Your task to perform on an android device: Open CNN.com Image 0: 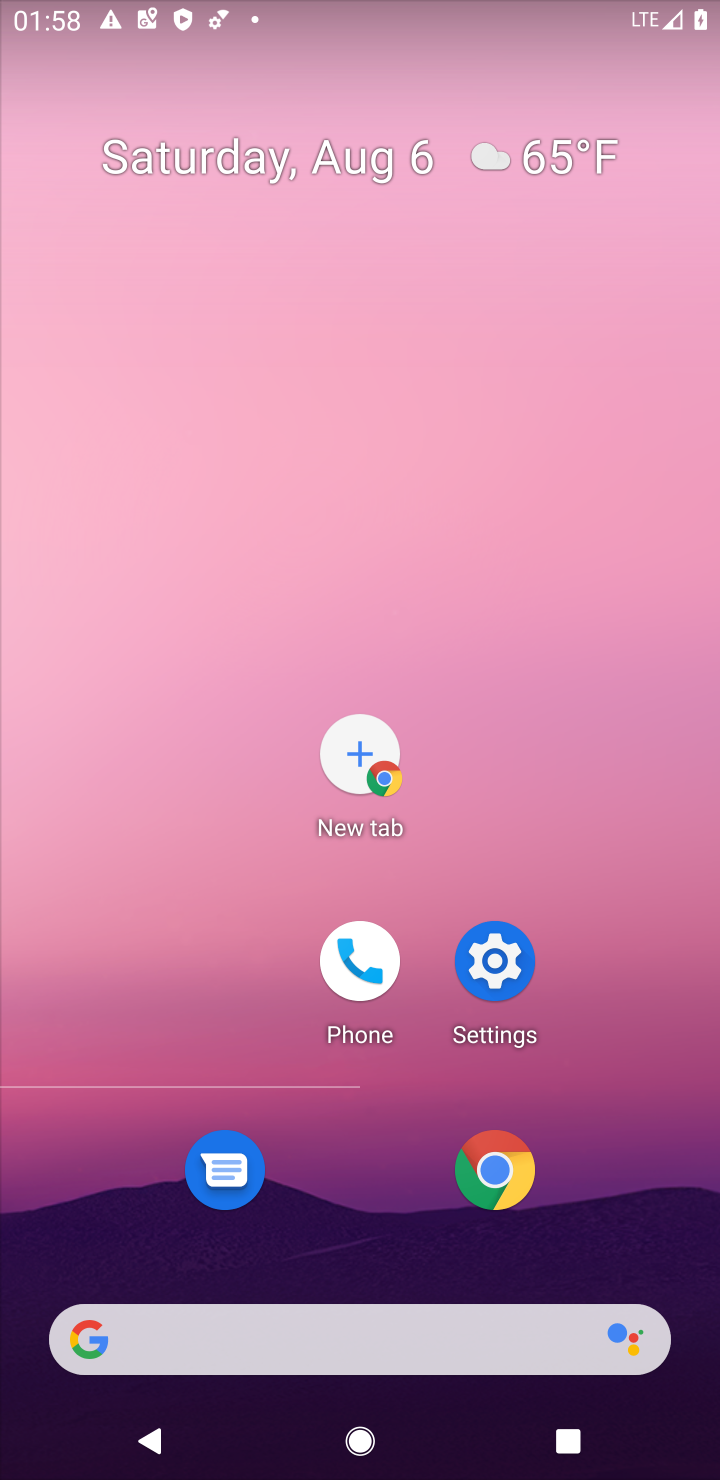
Step 0: click (518, 1157)
Your task to perform on an android device: Open CNN.com Image 1: 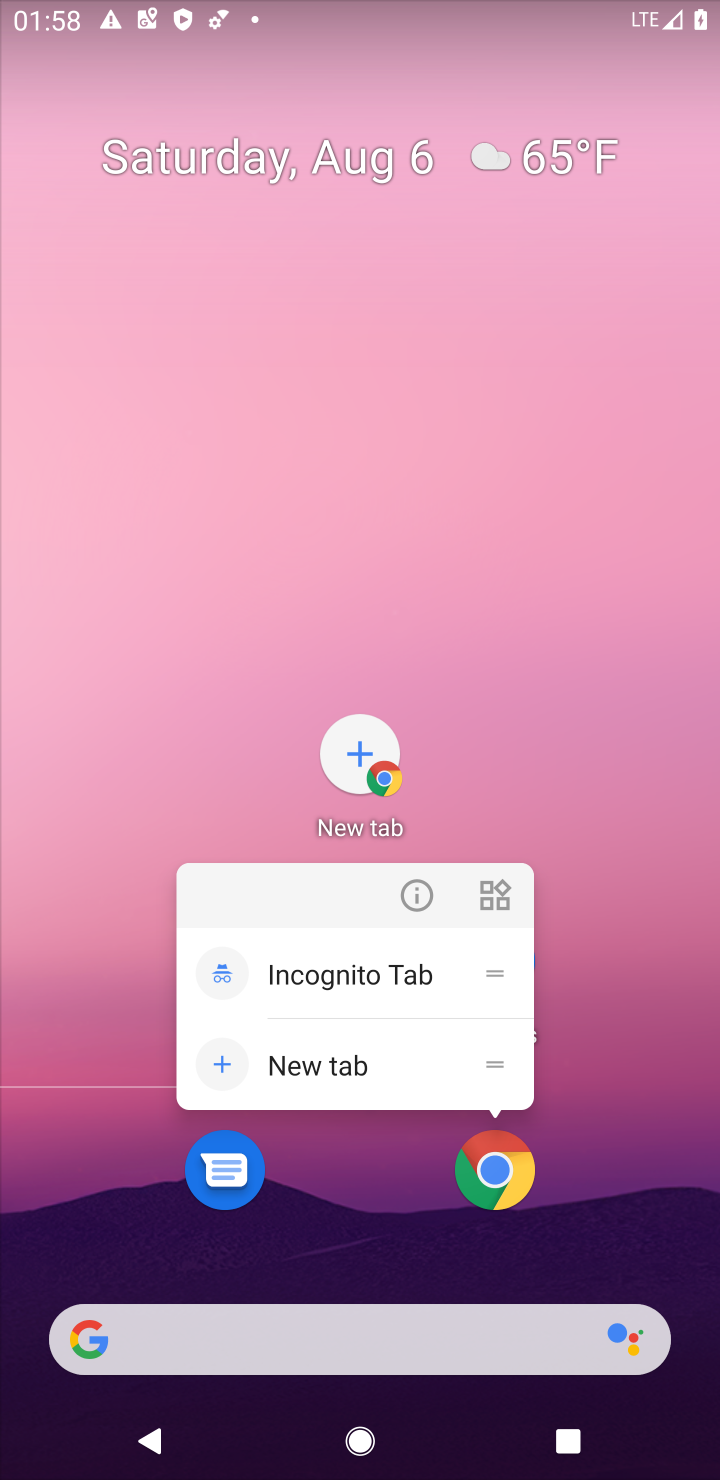
Step 1: click (652, 1101)
Your task to perform on an android device: Open CNN.com Image 2: 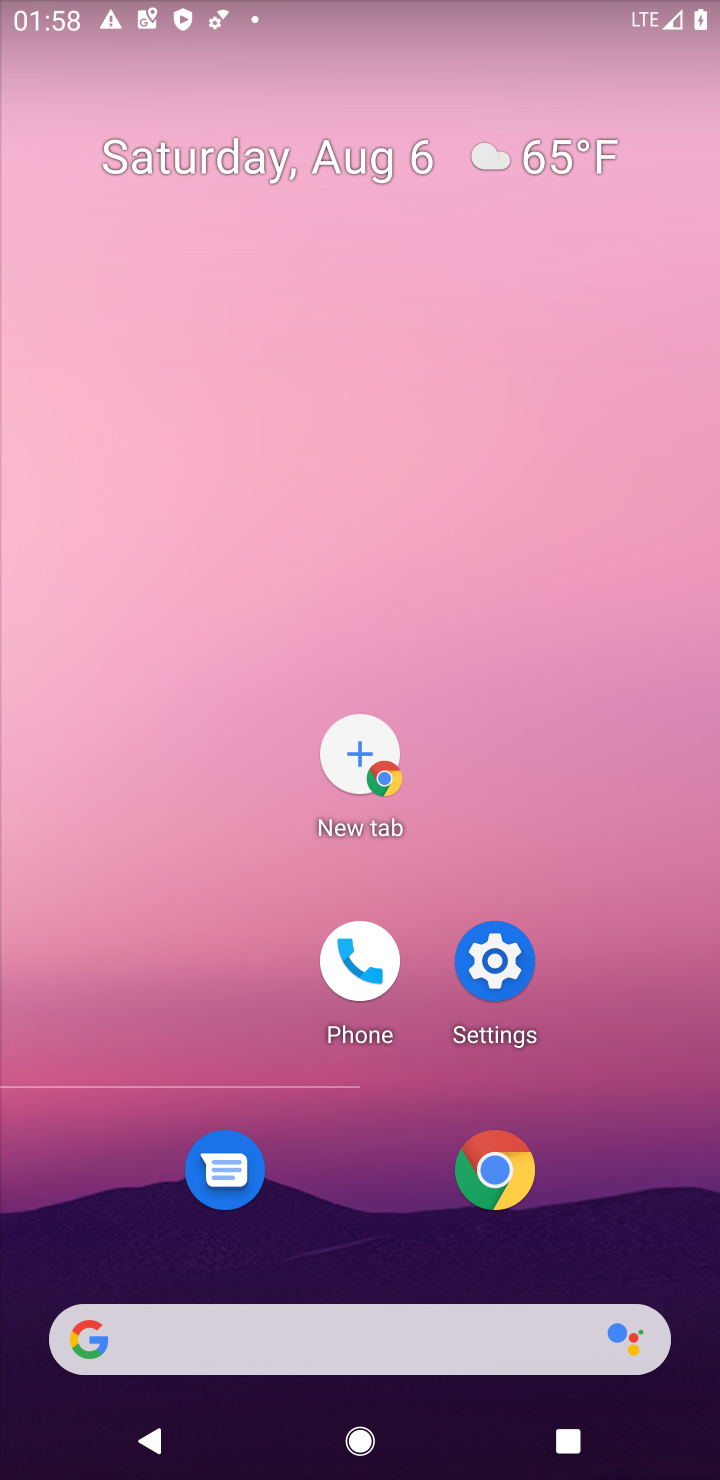
Step 2: click (500, 1179)
Your task to perform on an android device: Open CNN.com Image 3: 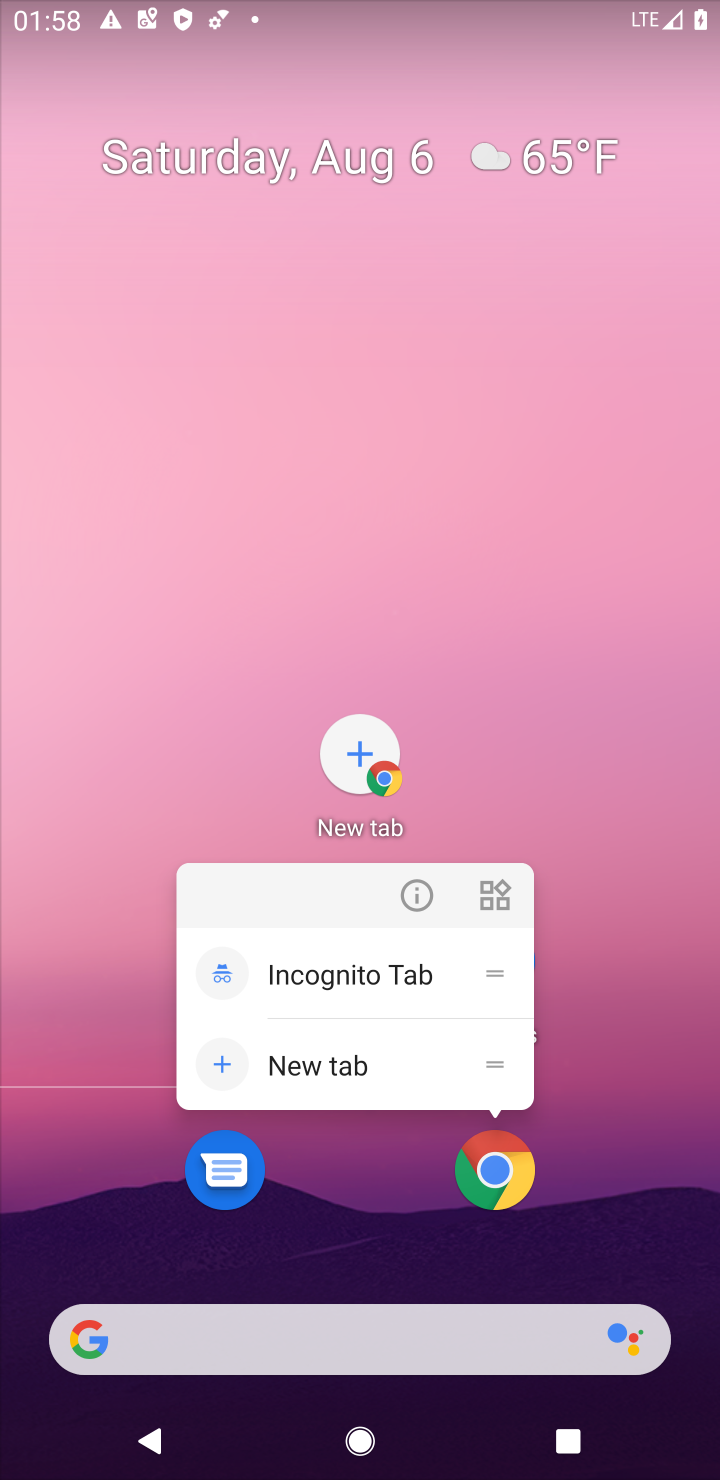
Step 3: click (375, 1073)
Your task to perform on an android device: Open CNN.com Image 4: 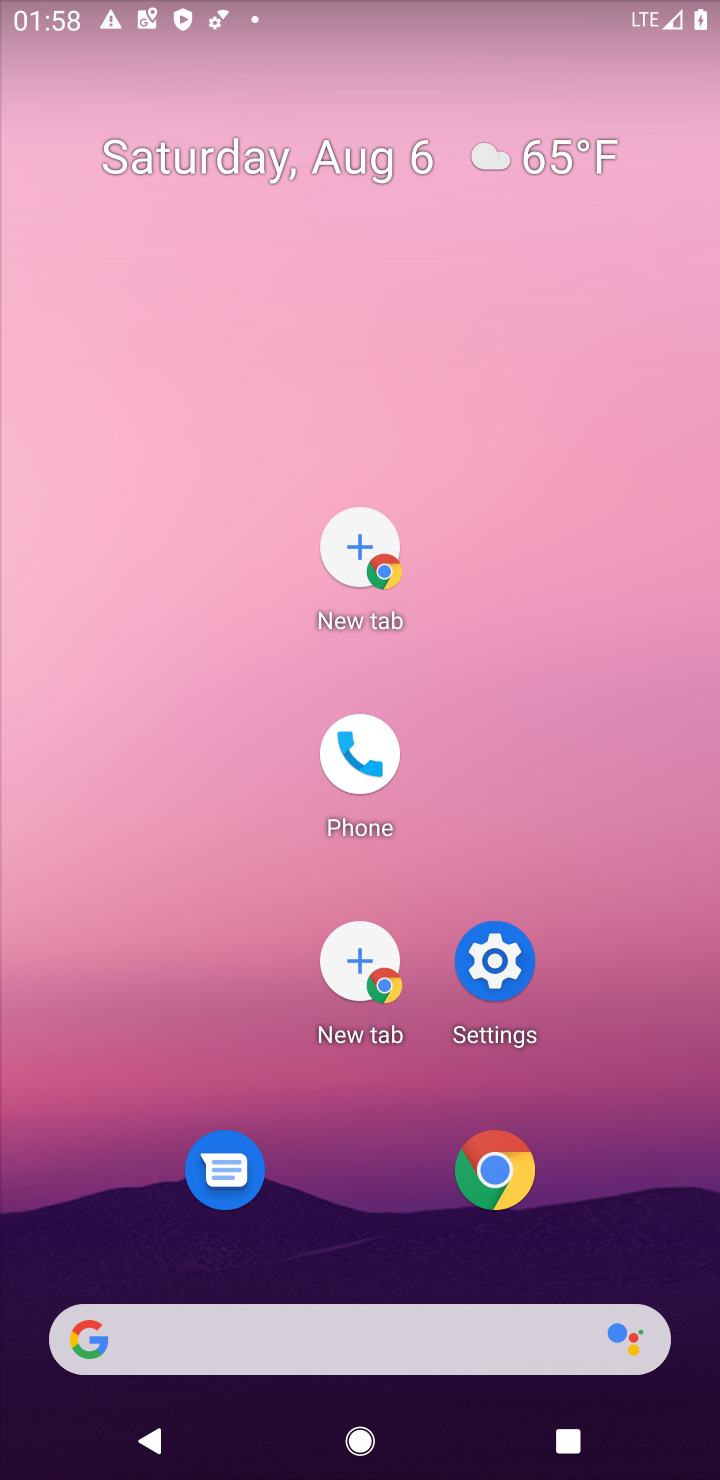
Step 4: click (351, 1336)
Your task to perform on an android device: Open CNN.com Image 5: 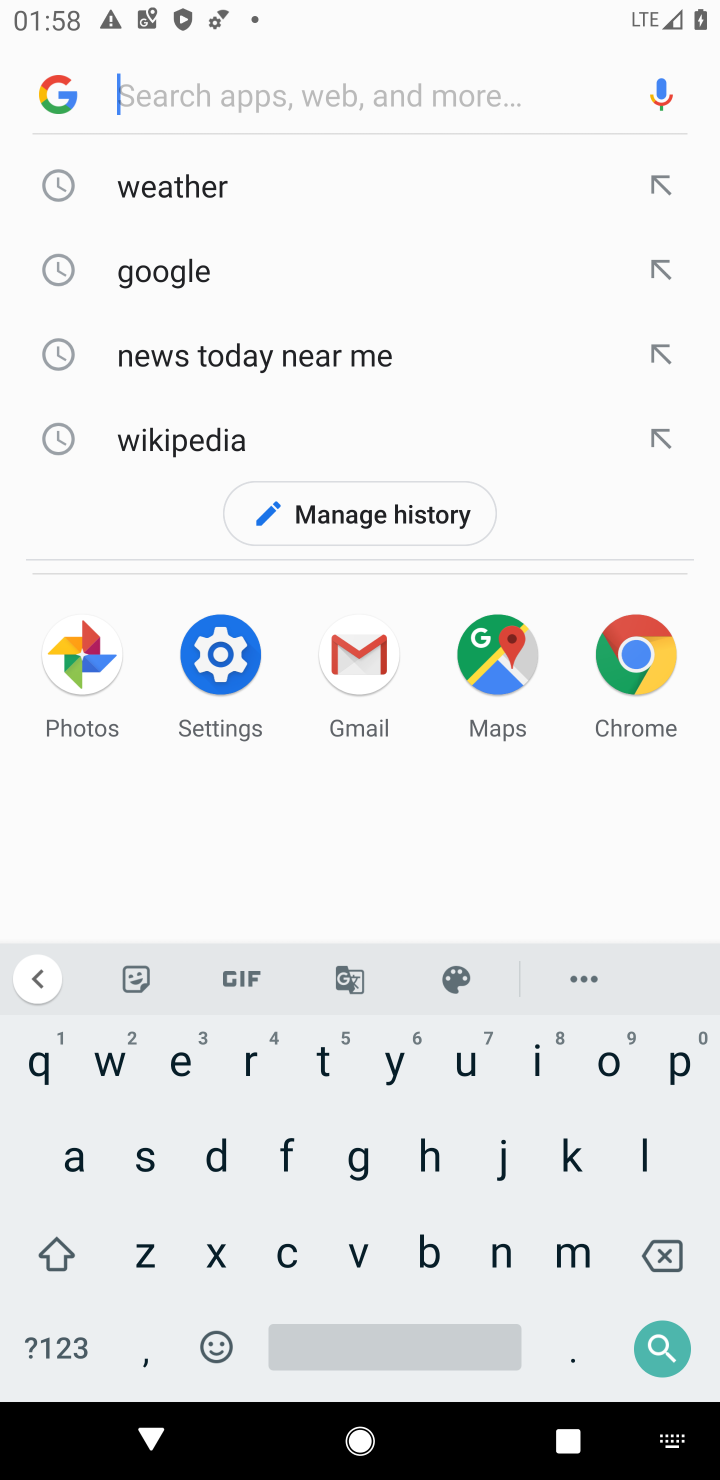
Step 5: click (279, 1239)
Your task to perform on an android device: Open CNN.com Image 6: 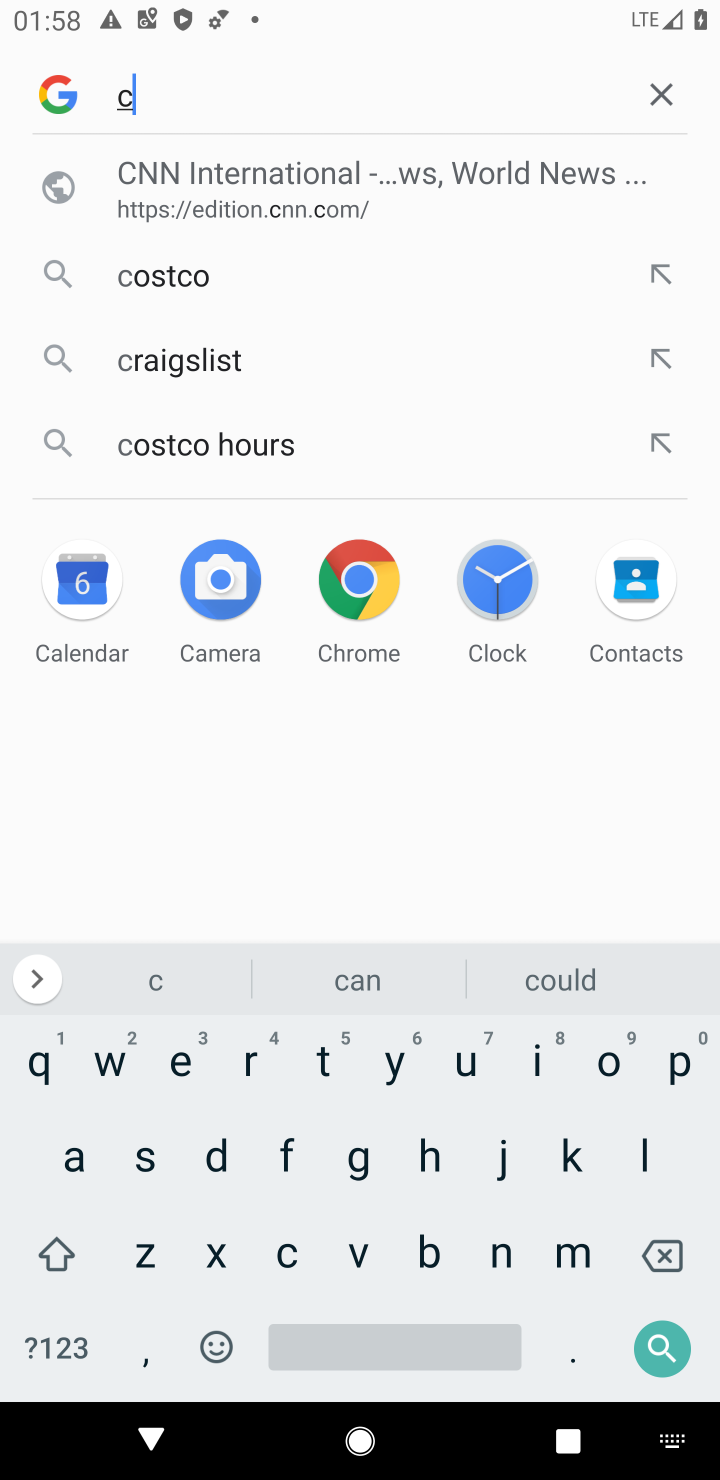
Step 6: click (500, 1248)
Your task to perform on an android device: Open CNN.com Image 7: 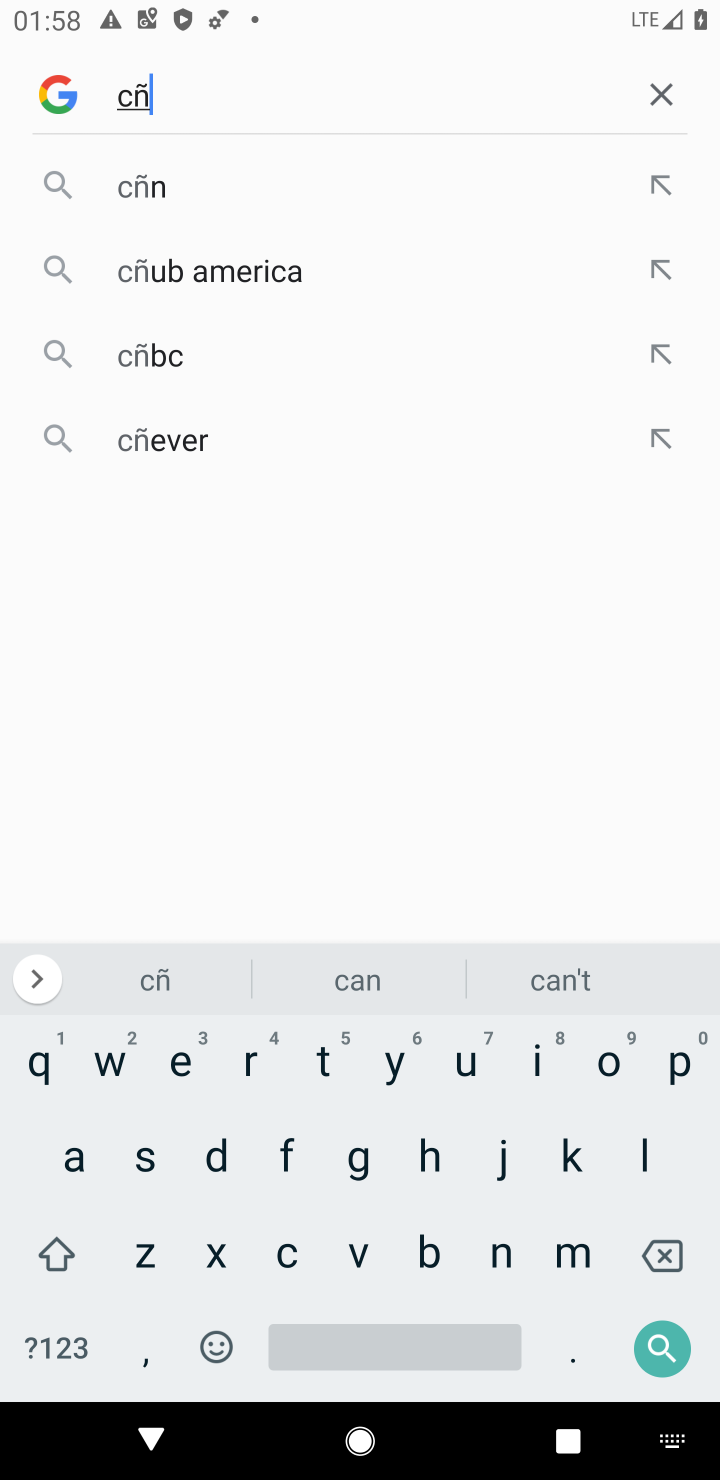
Step 7: click (681, 1238)
Your task to perform on an android device: Open CNN.com Image 8: 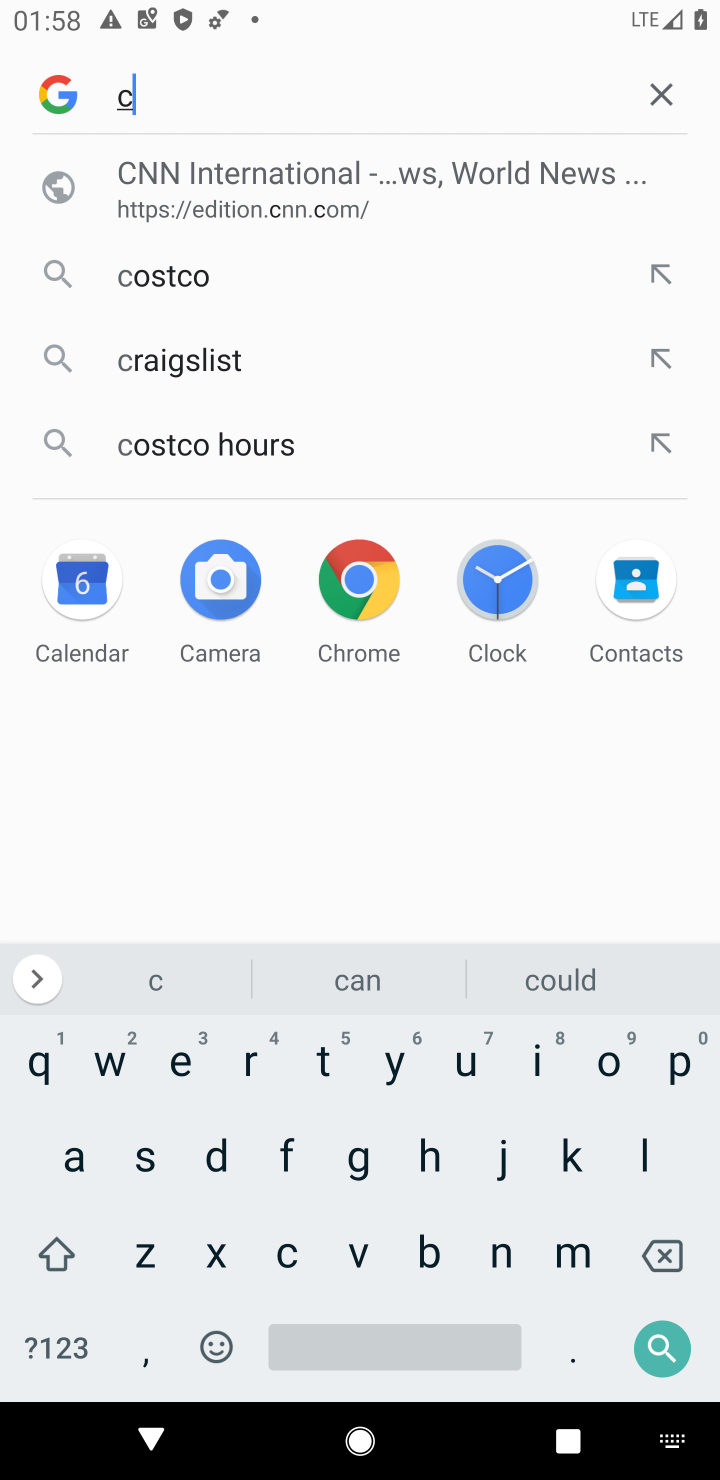
Step 8: click (507, 1266)
Your task to perform on an android device: Open CNN.com Image 9: 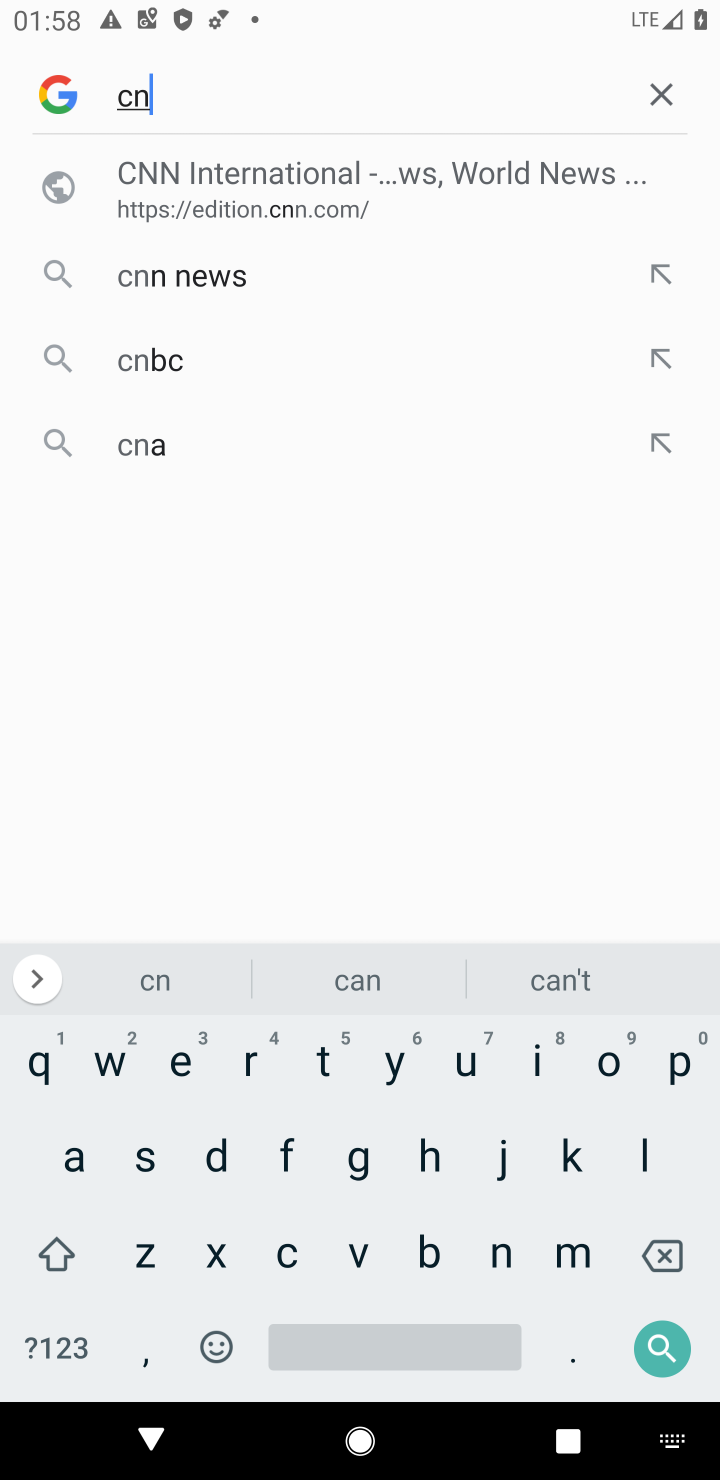
Step 9: click (507, 1266)
Your task to perform on an android device: Open CNN.com Image 10: 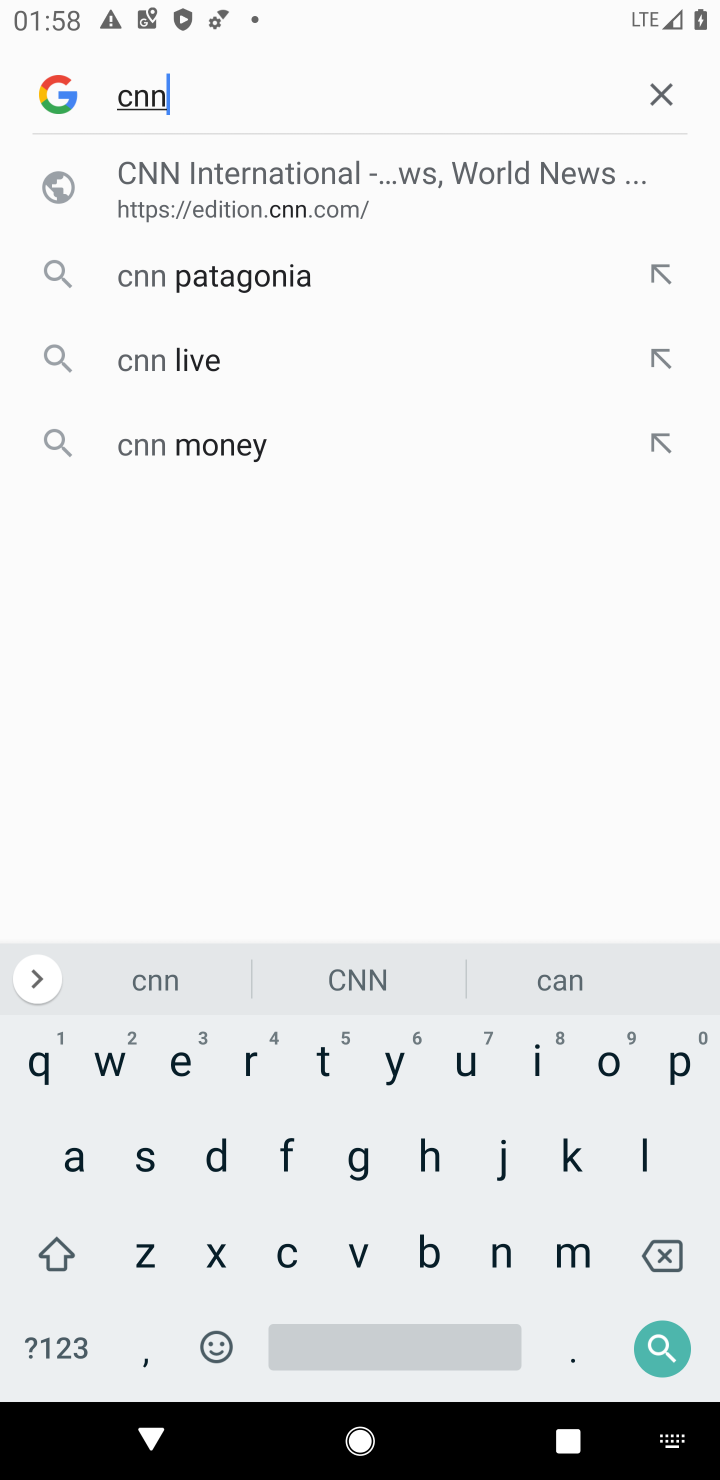
Step 10: click (570, 1345)
Your task to perform on an android device: Open CNN.com Image 11: 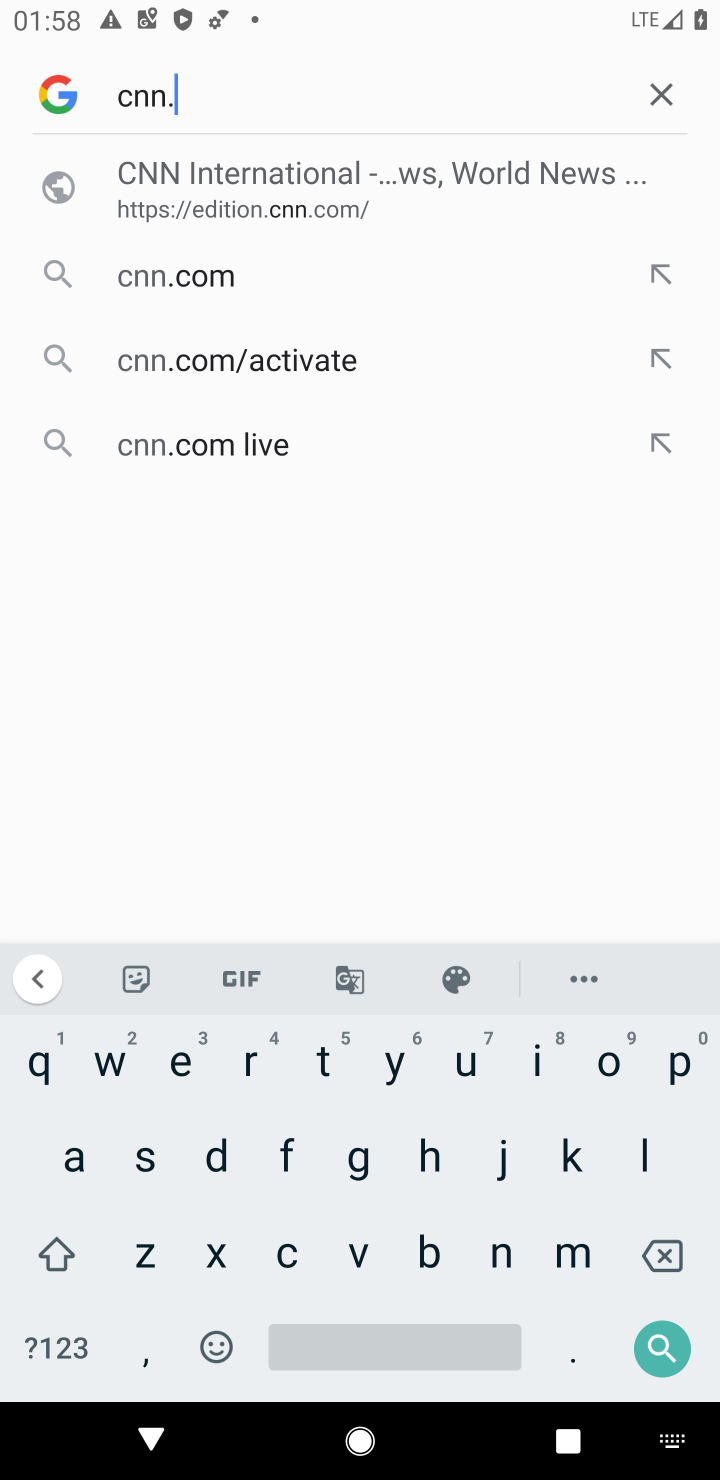
Step 11: click (292, 1271)
Your task to perform on an android device: Open CNN.com Image 12: 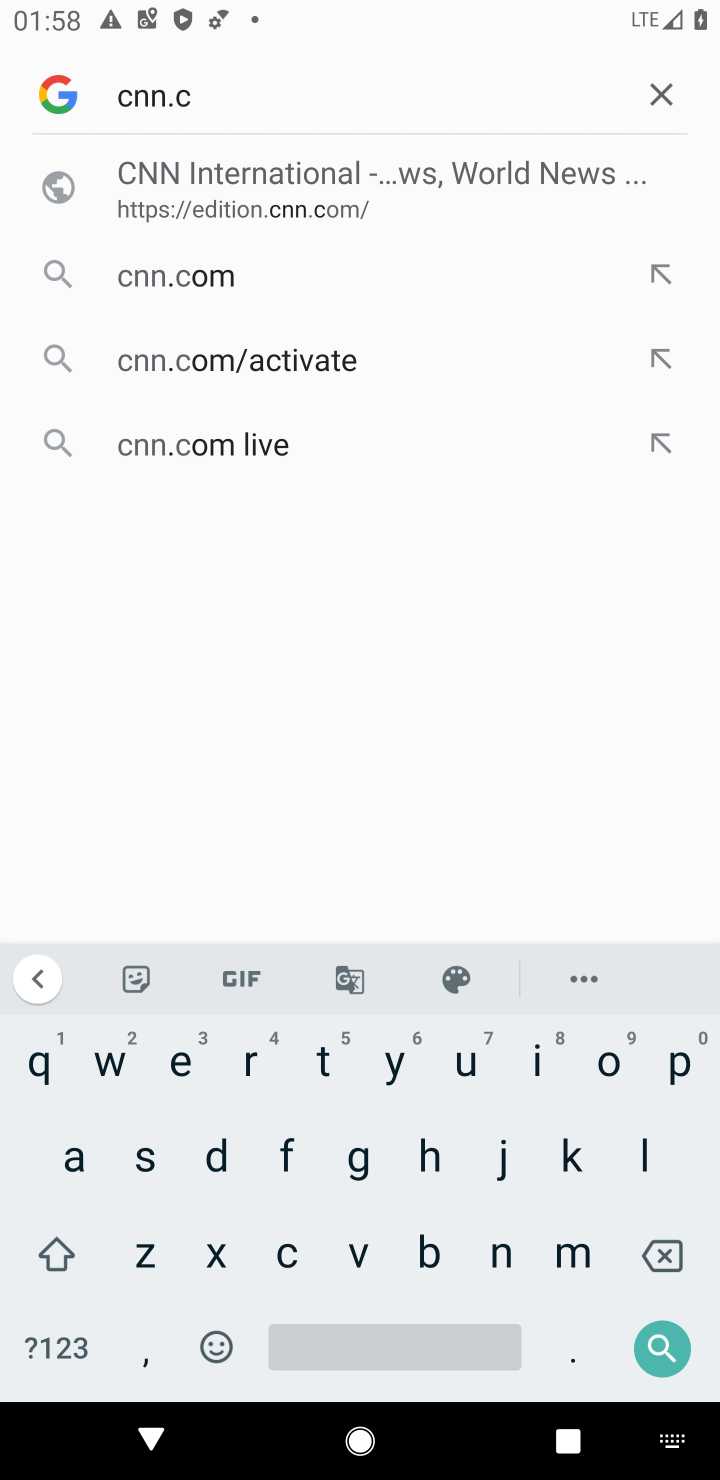
Step 12: click (279, 282)
Your task to perform on an android device: Open CNN.com Image 13: 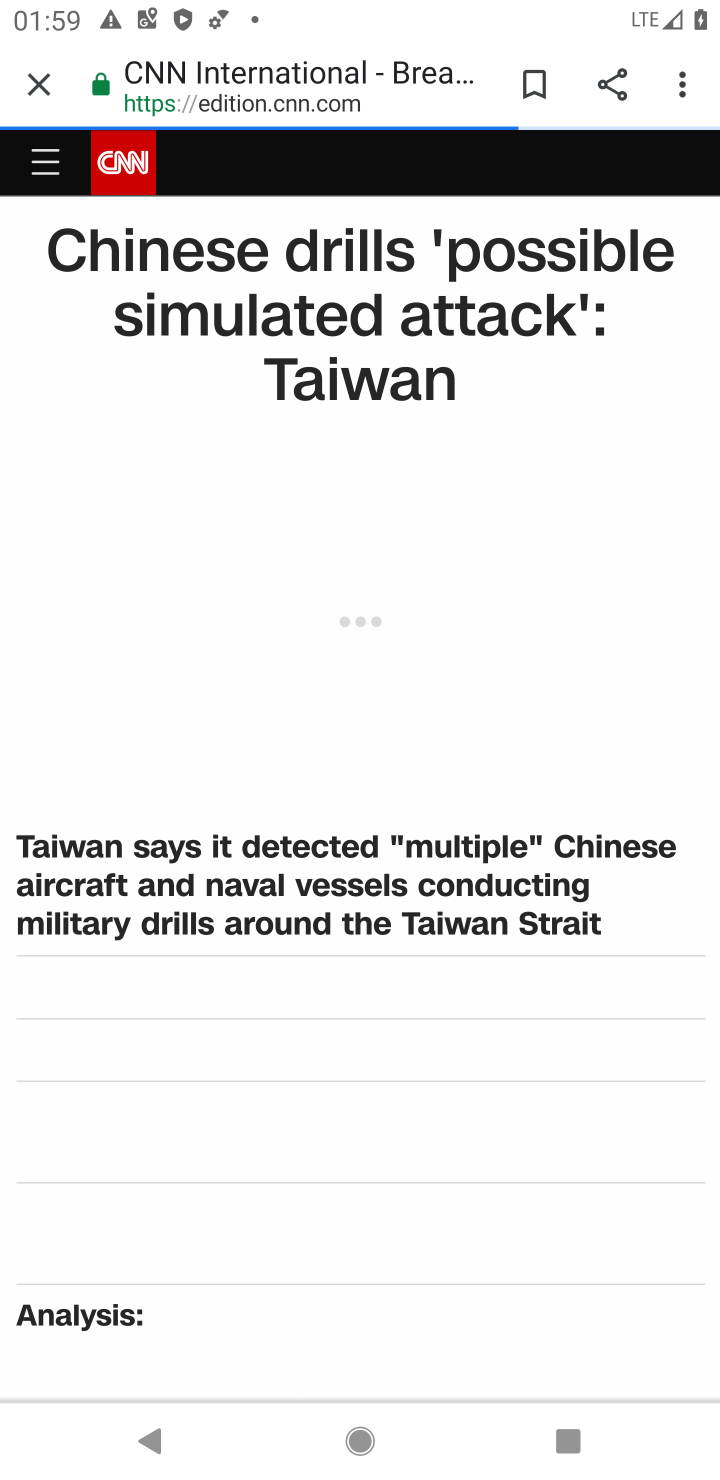
Step 13: task complete